Your task to perform on an android device: toggle priority inbox in the gmail app Image 0: 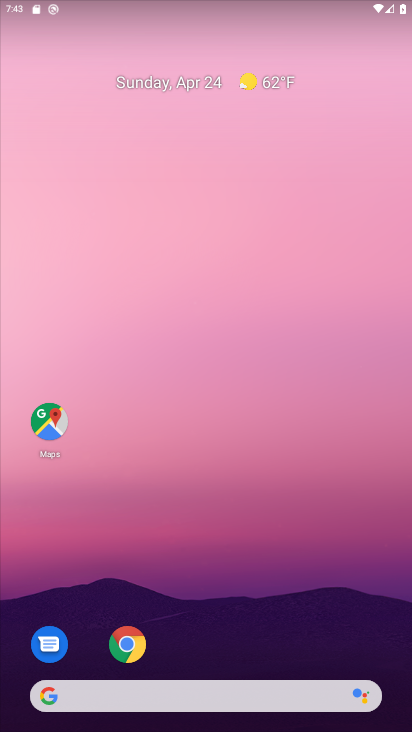
Step 0: drag from (201, 651) to (237, 58)
Your task to perform on an android device: toggle priority inbox in the gmail app Image 1: 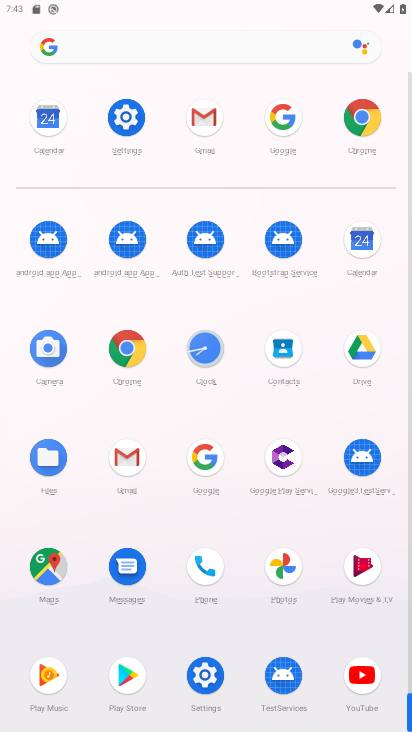
Step 1: click (125, 453)
Your task to perform on an android device: toggle priority inbox in the gmail app Image 2: 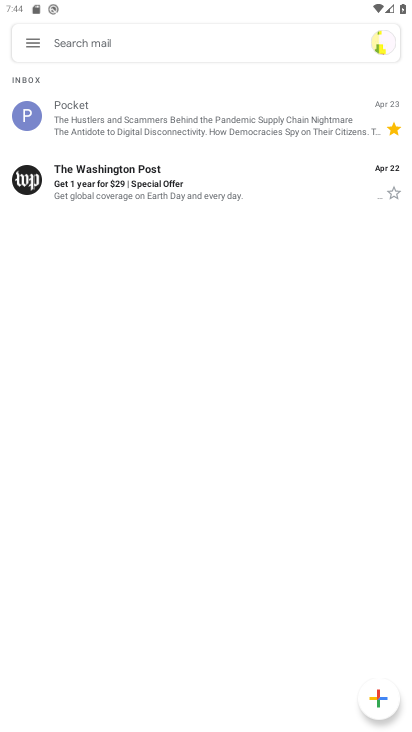
Step 2: click (29, 42)
Your task to perform on an android device: toggle priority inbox in the gmail app Image 3: 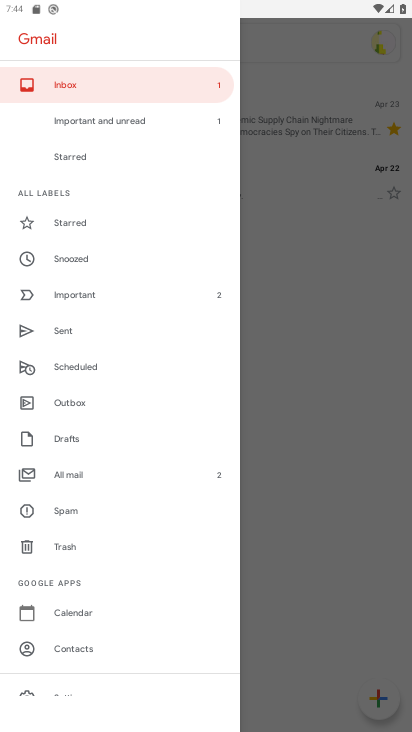
Step 3: drag from (113, 608) to (117, 200)
Your task to perform on an android device: toggle priority inbox in the gmail app Image 4: 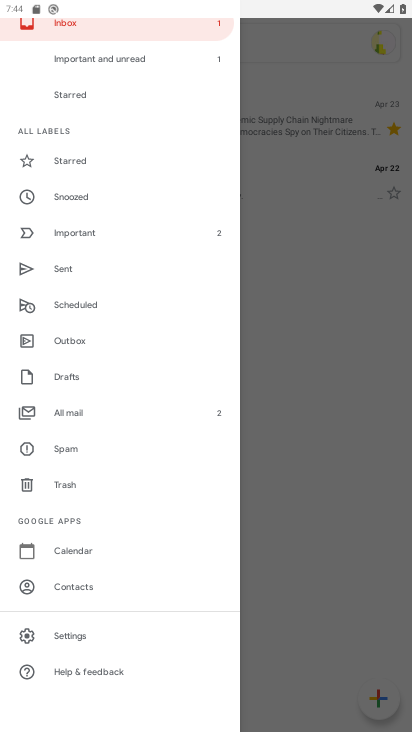
Step 4: click (93, 634)
Your task to perform on an android device: toggle priority inbox in the gmail app Image 5: 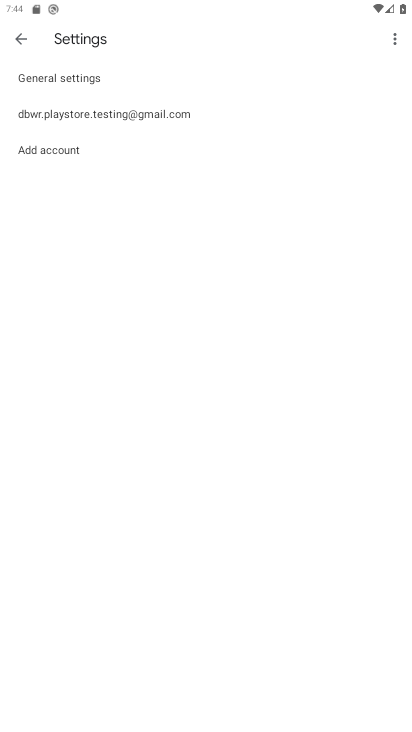
Step 5: click (125, 113)
Your task to perform on an android device: toggle priority inbox in the gmail app Image 6: 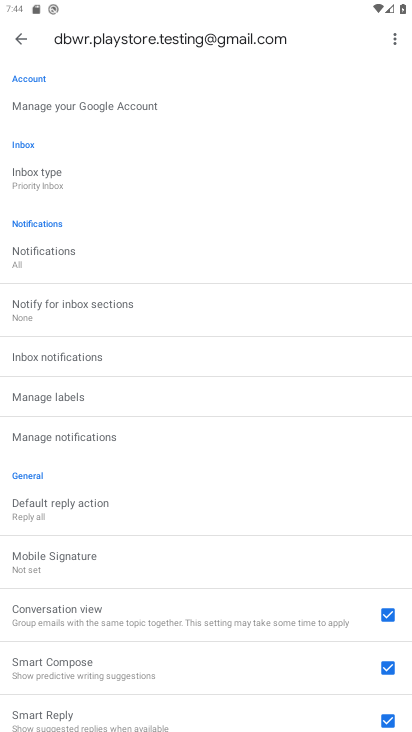
Step 6: click (70, 169)
Your task to perform on an android device: toggle priority inbox in the gmail app Image 7: 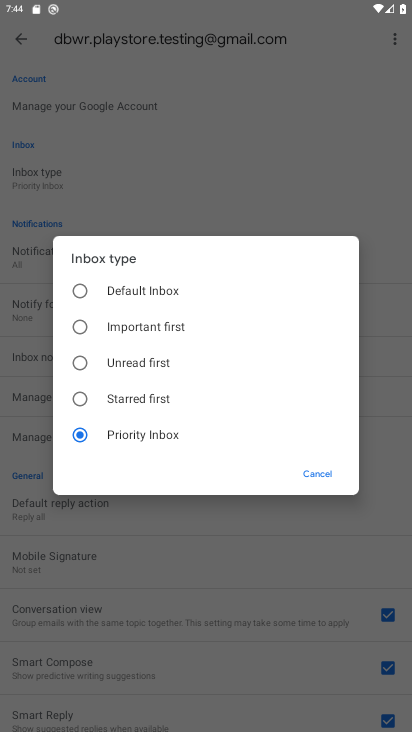
Step 7: click (93, 436)
Your task to perform on an android device: toggle priority inbox in the gmail app Image 8: 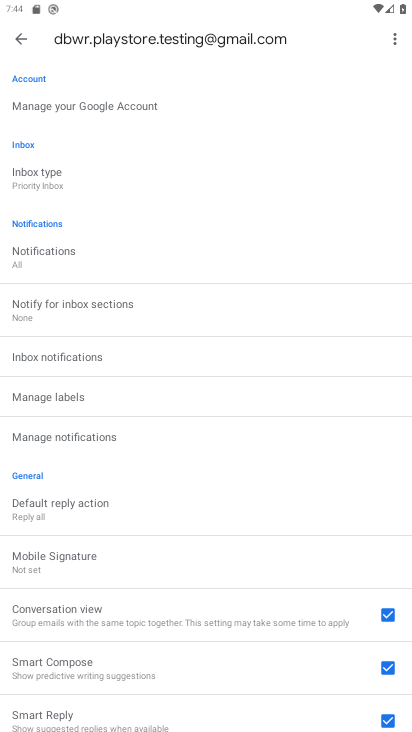
Step 8: task complete